Your task to perform on an android device: Show me productivity apps on the Play Store Image 0: 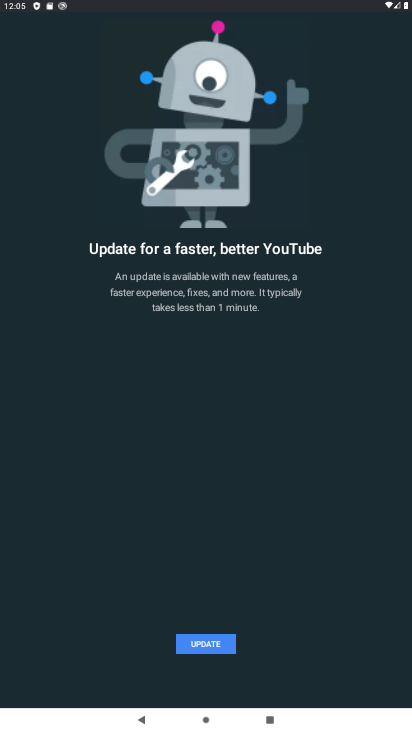
Step 0: press back button
Your task to perform on an android device: Show me productivity apps on the Play Store Image 1: 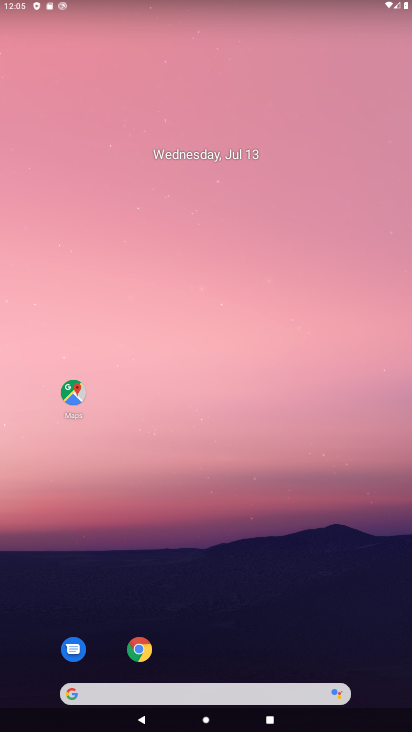
Step 1: drag from (339, 642) to (338, 93)
Your task to perform on an android device: Show me productivity apps on the Play Store Image 2: 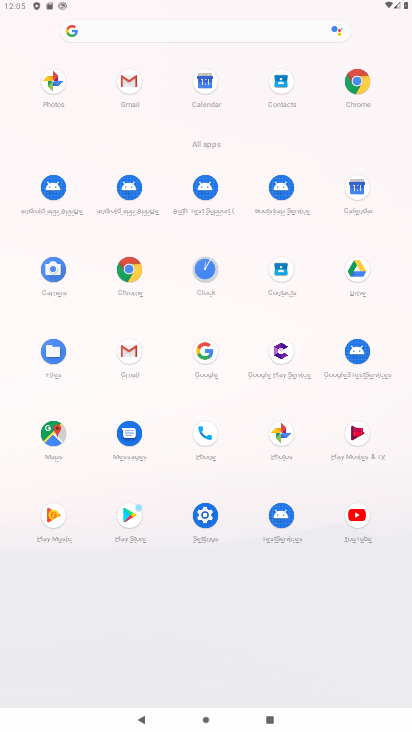
Step 2: click (135, 507)
Your task to perform on an android device: Show me productivity apps on the Play Store Image 3: 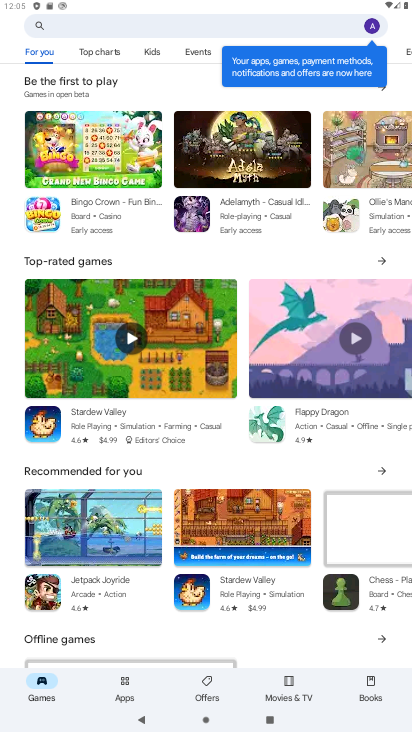
Step 3: click (129, 682)
Your task to perform on an android device: Show me productivity apps on the Play Store Image 4: 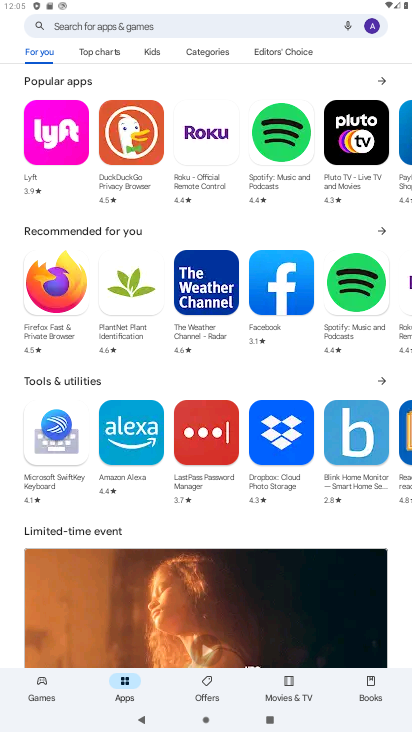
Step 4: click (215, 51)
Your task to perform on an android device: Show me productivity apps on the Play Store Image 5: 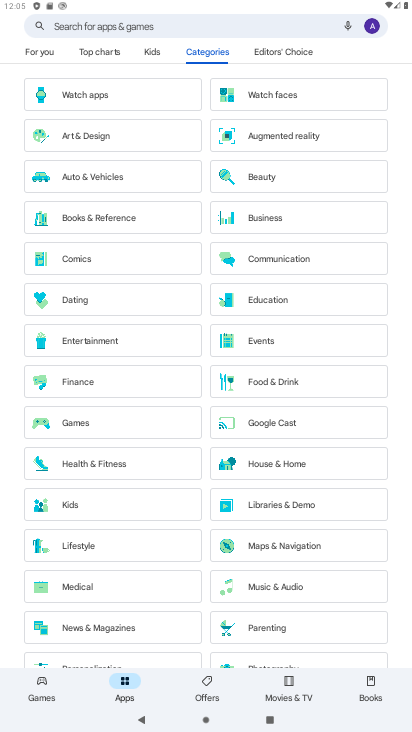
Step 5: drag from (98, 626) to (121, 491)
Your task to perform on an android device: Show me productivity apps on the Play Store Image 6: 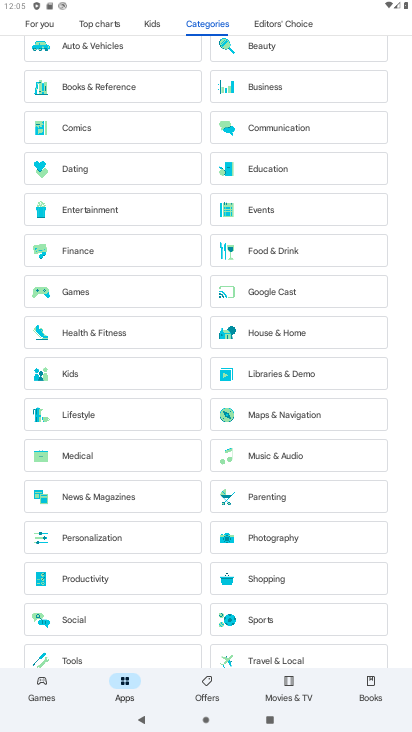
Step 6: click (73, 575)
Your task to perform on an android device: Show me productivity apps on the Play Store Image 7: 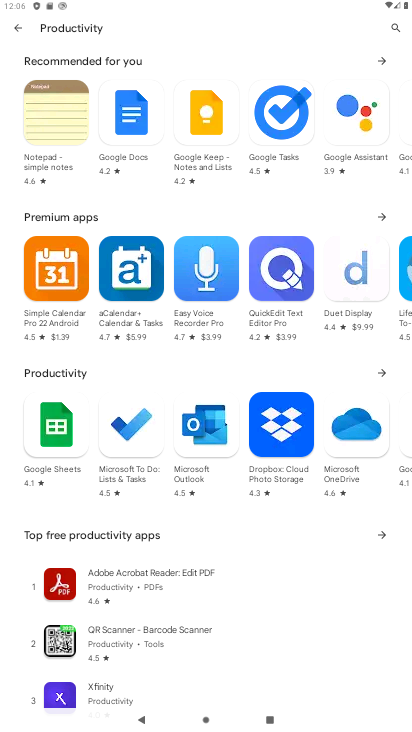
Step 7: task complete